Your task to perform on an android device: open a new tab in the chrome app Image 0: 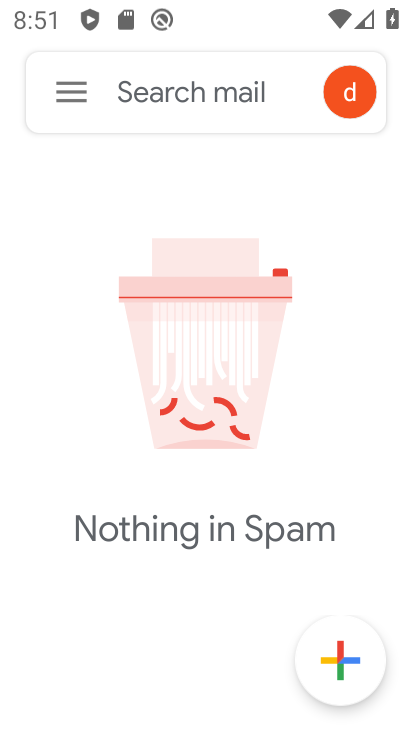
Step 0: press home button
Your task to perform on an android device: open a new tab in the chrome app Image 1: 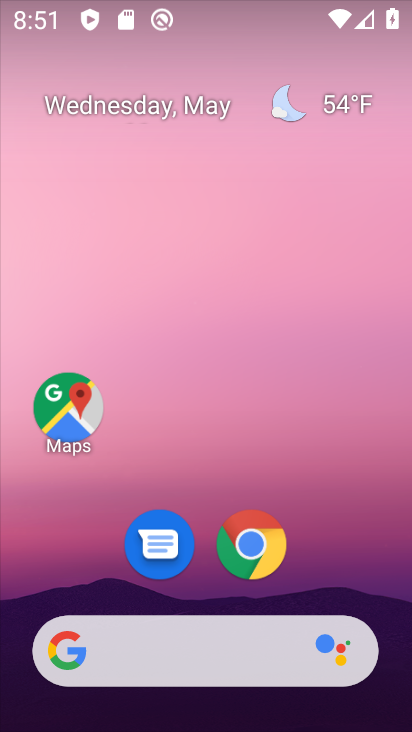
Step 1: click (254, 545)
Your task to perform on an android device: open a new tab in the chrome app Image 2: 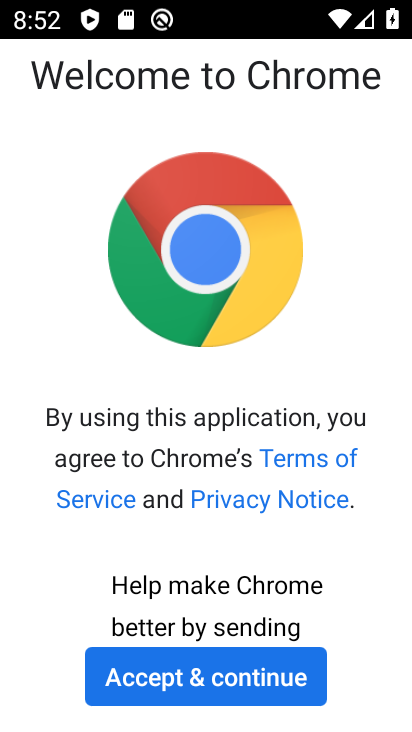
Step 2: click (170, 664)
Your task to perform on an android device: open a new tab in the chrome app Image 3: 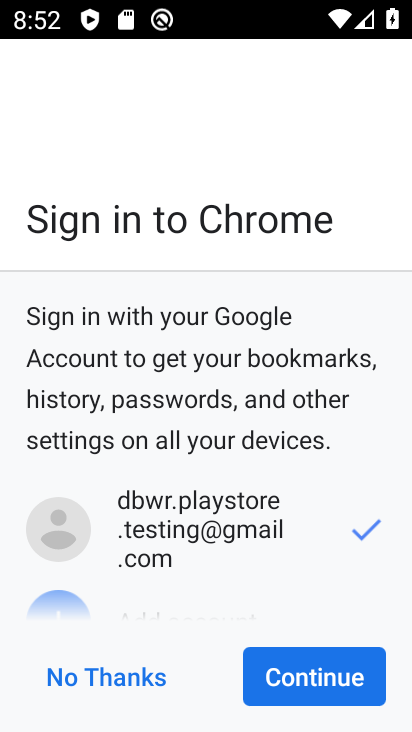
Step 3: click (294, 667)
Your task to perform on an android device: open a new tab in the chrome app Image 4: 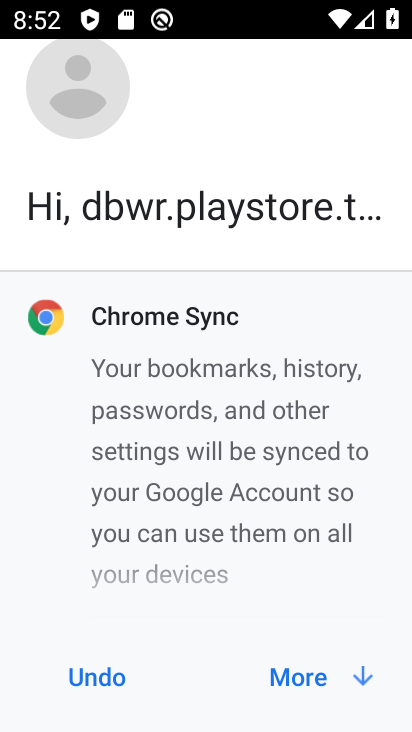
Step 4: click (294, 667)
Your task to perform on an android device: open a new tab in the chrome app Image 5: 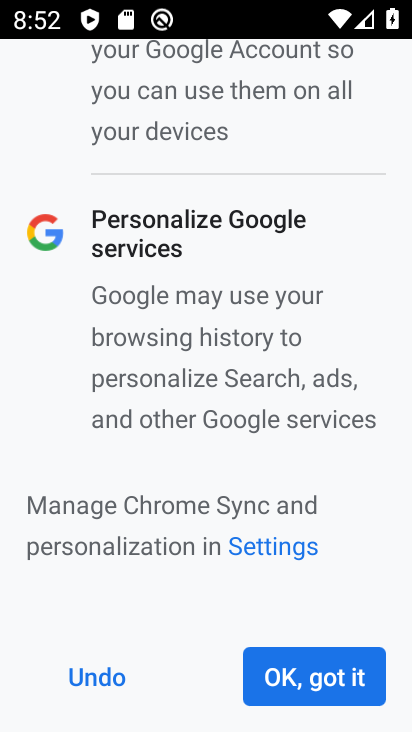
Step 5: click (294, 667)
Your task to perform on an android device: open a new tab in the chrome app Image 6: 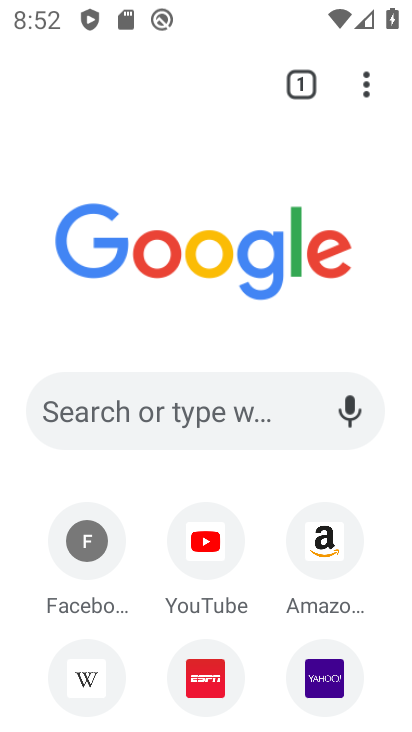
Step 6: task complete